Your task to perform on an android device: change timer sound Image 0: 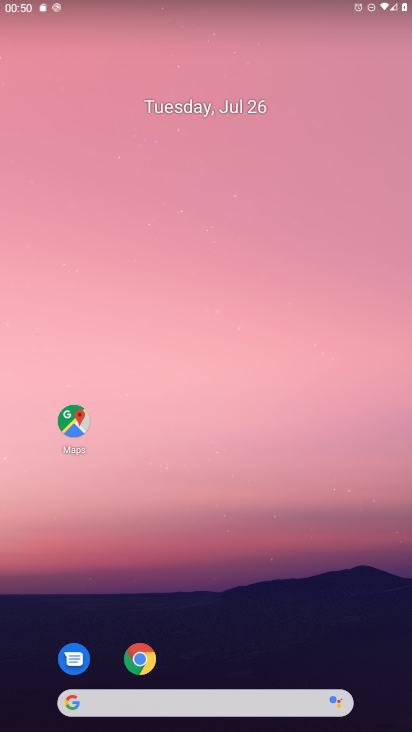
Step 0: drag from (271, 636) to (273, 110)
Your task to perform on an android device: change timer sound Image 1: 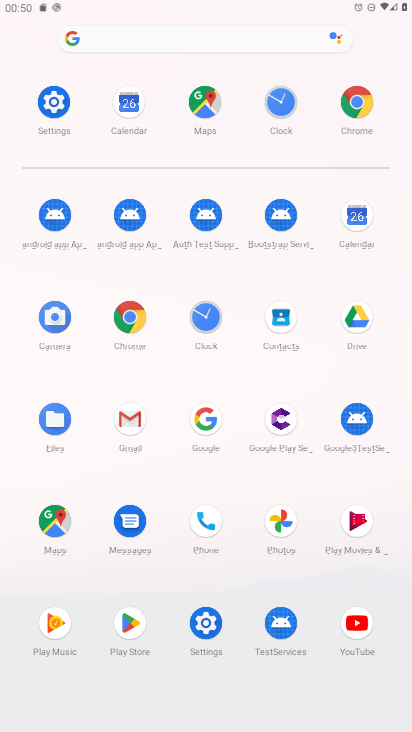
Step 1: click (212, 622)
Your task to perform on an android device: change timer sound Image 2: 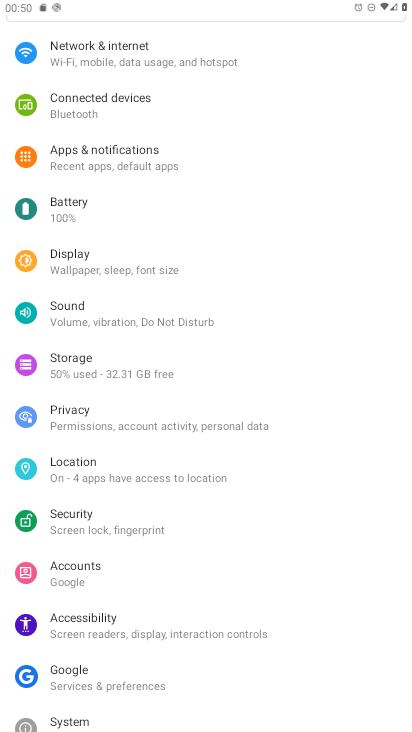
Step 2: drag from (122, 565) to (136, 272)
Your task to perform on an android device: change timer sound Image 3: 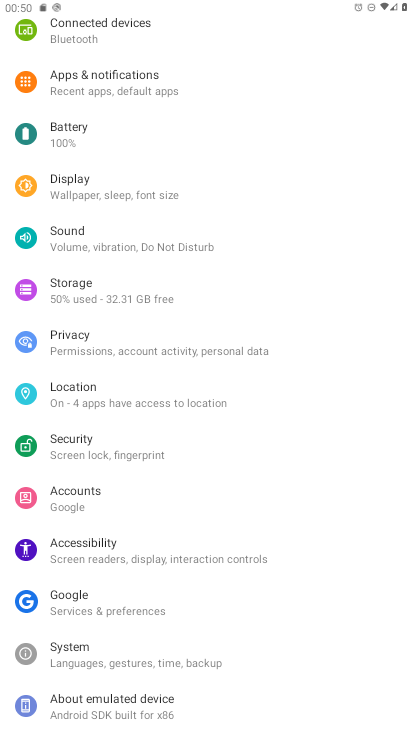
Step 3: press home button
Your task to perform on an android device: change timer sound Image 4: 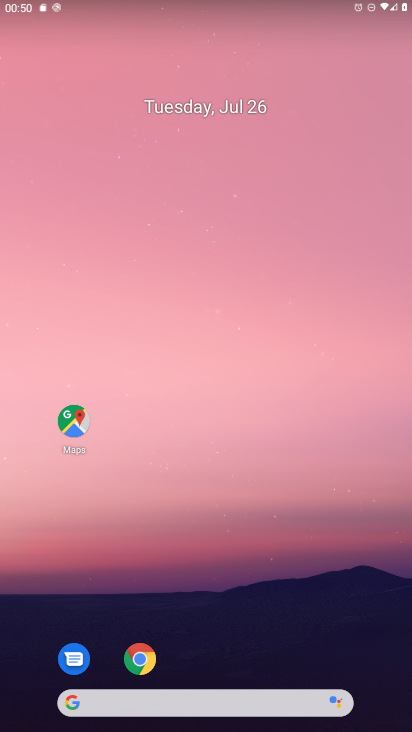
Step 4: drag from (280, 559) to (281, 73)
Your task to perform on an android device: change timer sound Image 5: 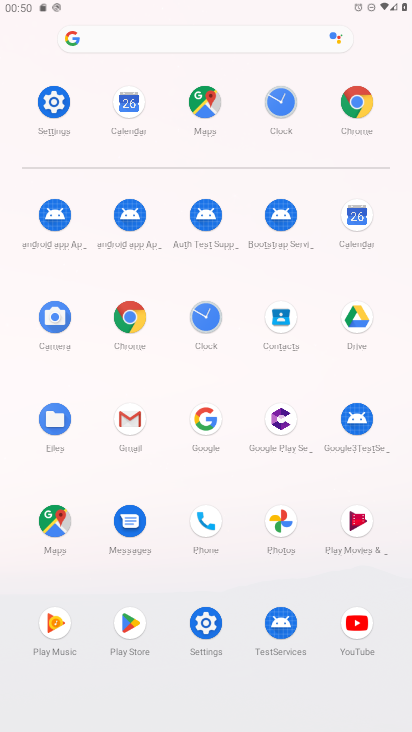
Step 5: click (207, 320)
Your task to perform on an android device: change timer sound Image 6: 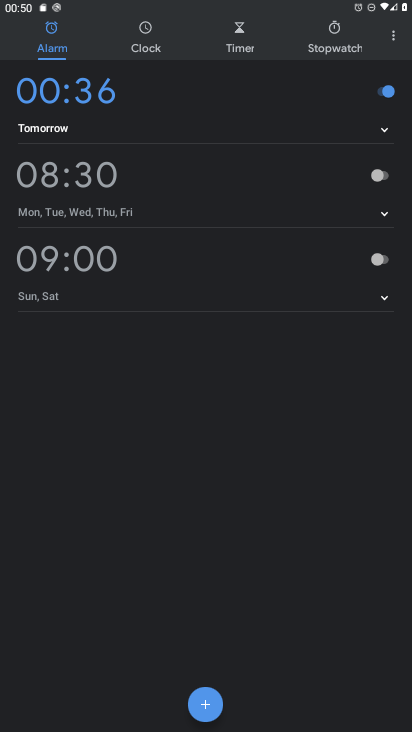
Step 6: click (398, 40)
Your task to perform on an android device: change timer sound Image 7: 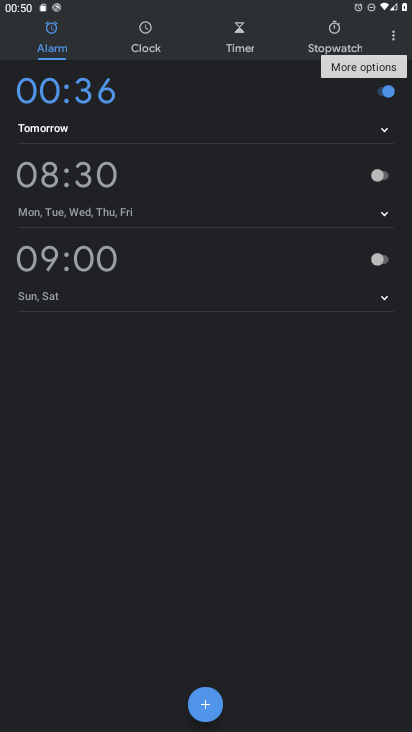
Step 7: click (392, 40)
Your task to perform on an android device: change timer sound Image 8: 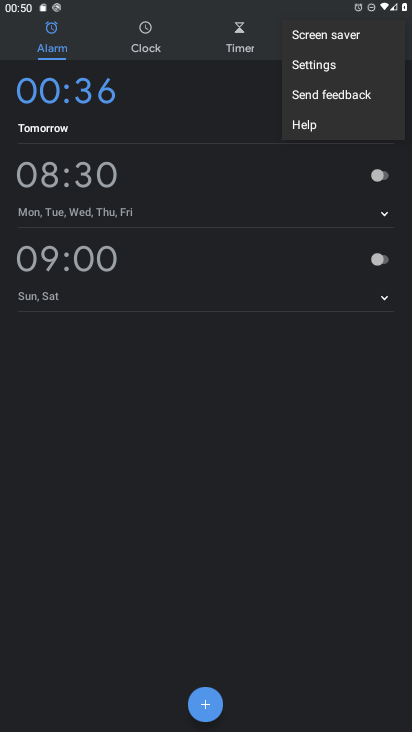
Step 8: click (341, 61)
Your task to perform on an android device: change timer sound Image 9: 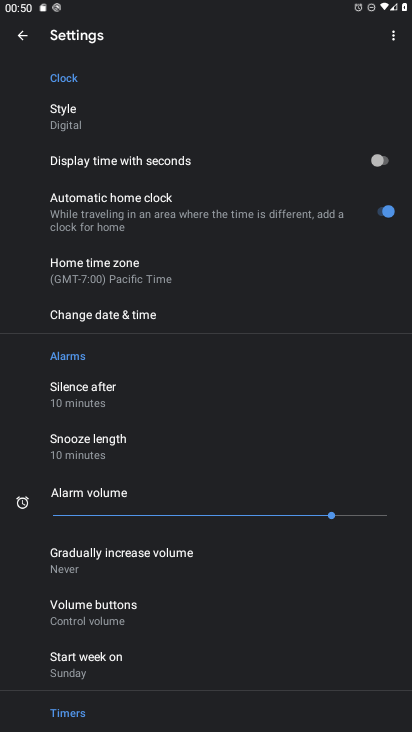
Step 9: drag from (202, 608) to (233, 304)
Your task to perform on an android device: change timer sound Image 10: 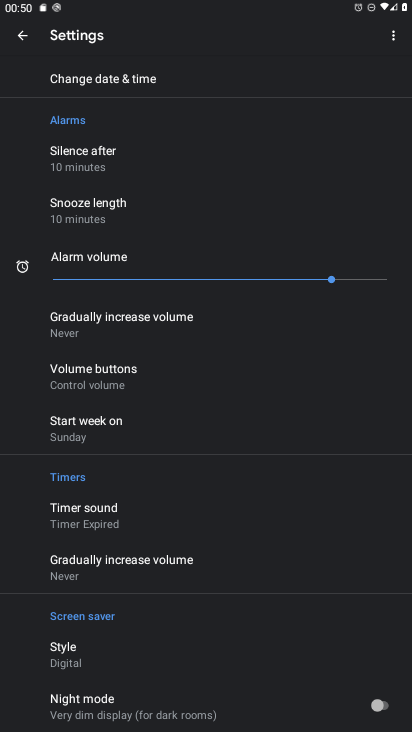
Step 10: click (104, 508)
Your task to perform on an android device: change timer sound Image 11: 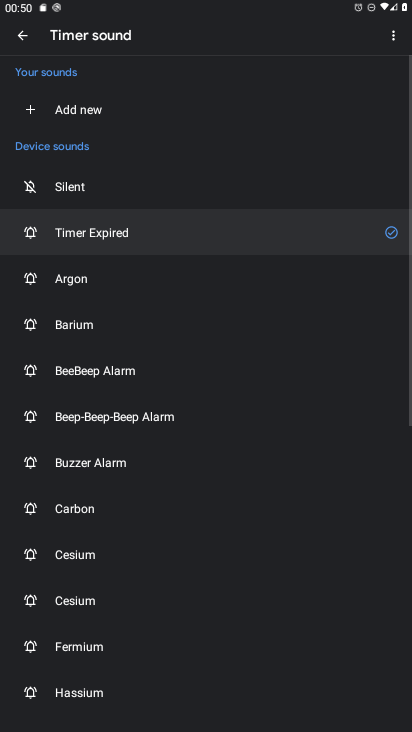
Step 11: click (150, 417)
Your task to perform on an android device: change timer sound Image 12: 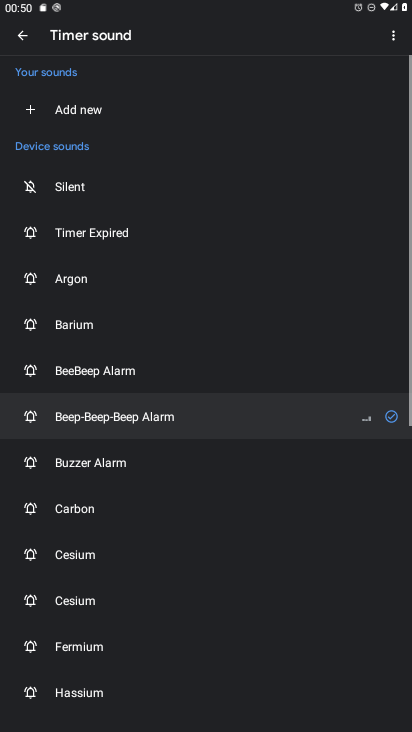
Step 12: click (390, 414)
Your task to perform on an android device: change timer sound Image 13: 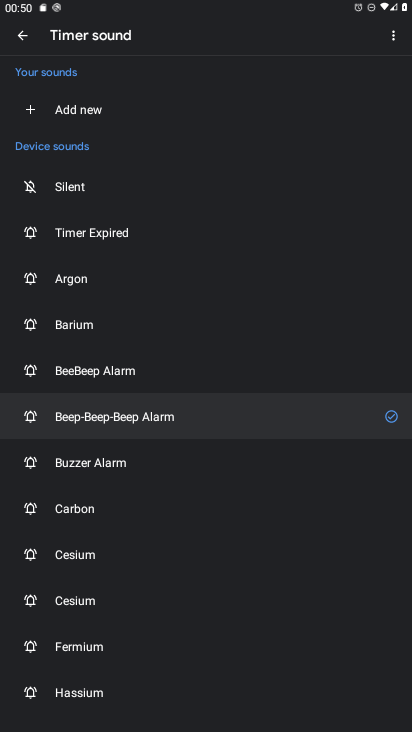
Step 13: task complete